Your task to perform on an android device: Open Google Chrome and click the shortcut for Amazon.com Image 0: 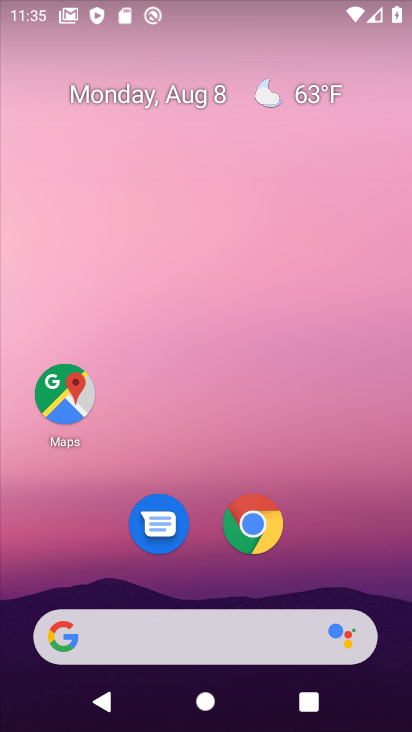
Step 0: click (260, 532)
Your task to perform on an android device: Open Google Chrome and click the shortcut for Amazon.com Image 1: 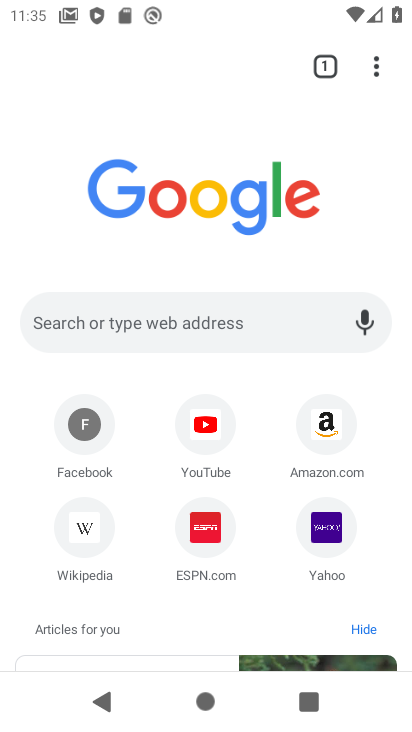
Step 1: click (328, 415)
Your task to perform on an android device: Open Google Chrome and click the shortcut for Amazon.com Image 2: 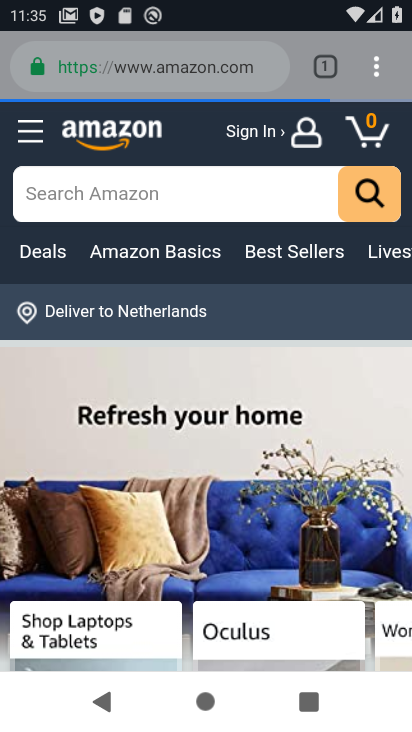
Step 2: task complete